Your task to perform on an android device: move an email to a new category in the gmail app Image 0: 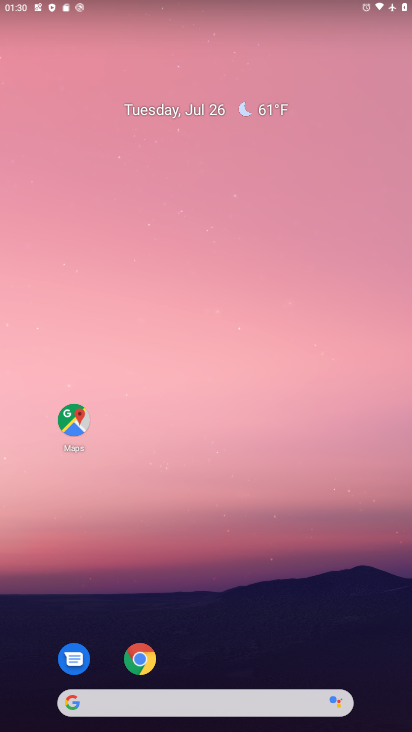
Step 0: drag from (310, 640) to (211, 20)
Your task to perform on an android device: move an email to a new category in the gmail app Image 1: 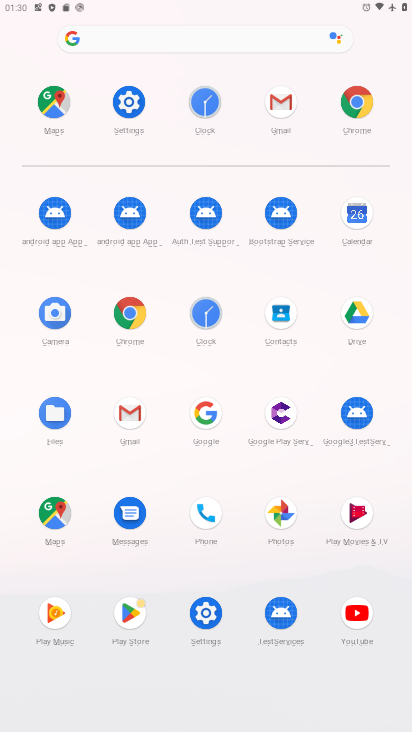
Step 1: click (276, 102)
Your task to perform on an android device: move an email to a new category in the gmail app Image 2: 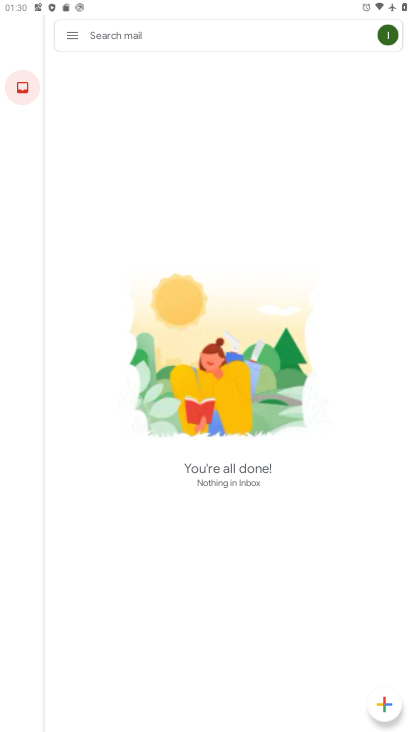
Step 2: click (70, 37)
Your task to perform on an android device: move an email to a new category in the gmail app Image 3: 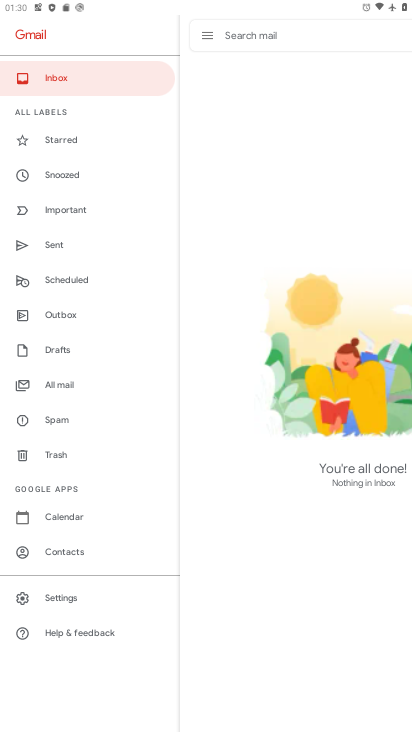
Step 3: click (58, 379)
Your task to perform on an android device: move an email to a new category in the gmail app Image 4: 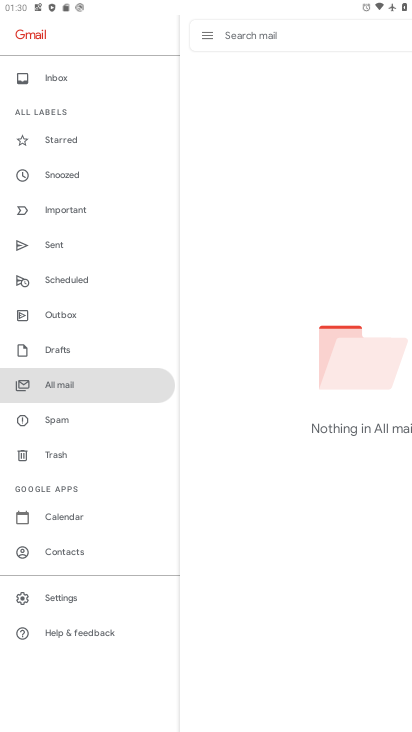
Step 4: task complete